Your task to perform on an android device: What's the weather today? Image 0: 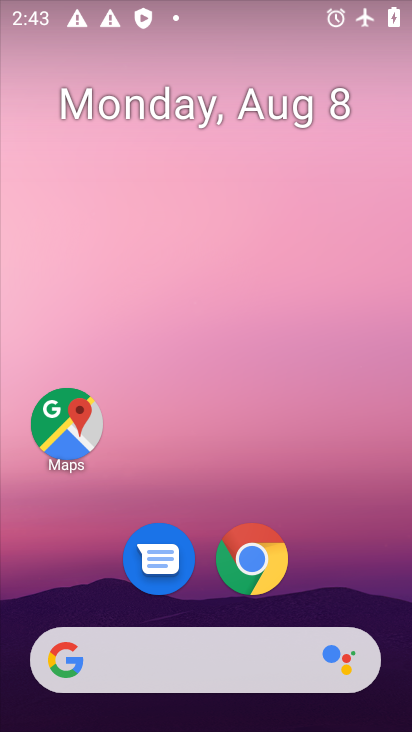
Step 0: drag from (198, 663) to (201, 261)
Your task to perform on an android device: What's the weather today? Image 1: 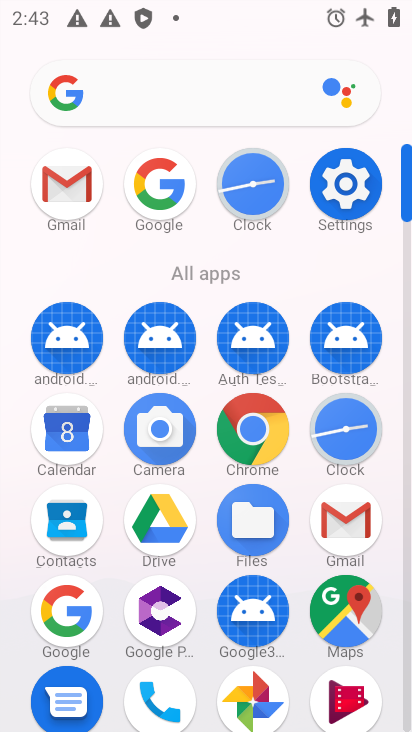
Step 1: click (64, 600)
Your task to perform on an android device: What's the weather today? Image 2: 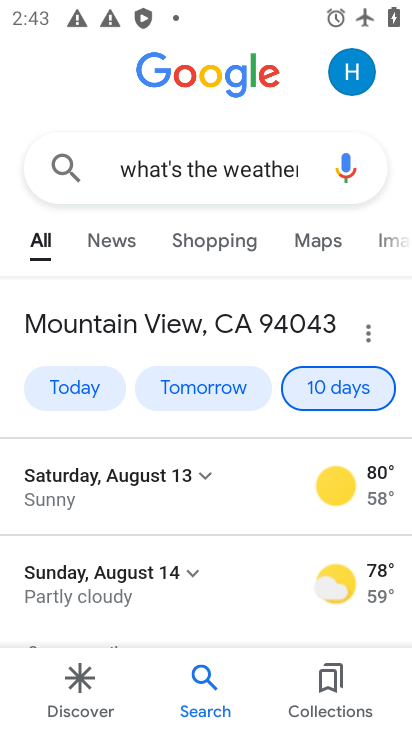
Step 2: click (80, 381)
Your task to perform on an android device: What's the weather today? Image 3: 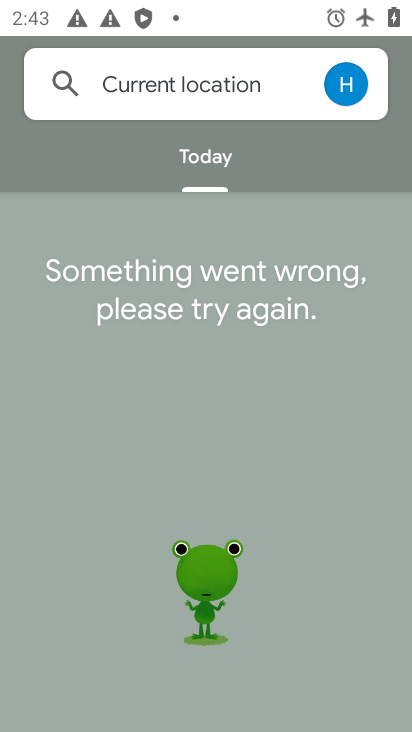
Step 3: click (275, 87)
Your task to perform on an android device: What's the weather today? Image 4: 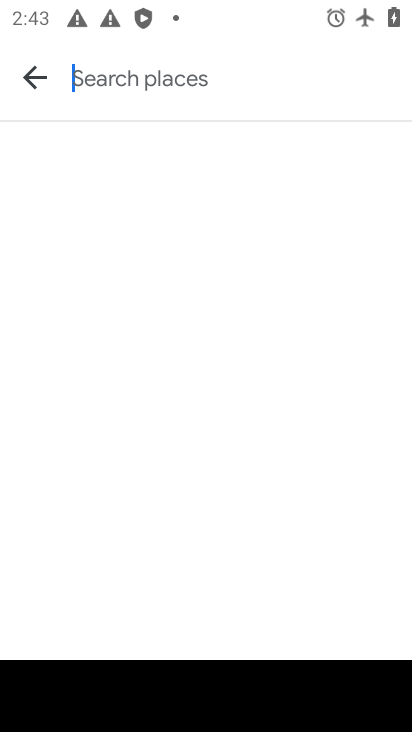
Step 4: task complete